Your task to perform on an android device: Open the phone app and click the voicemail tab. Image 0: 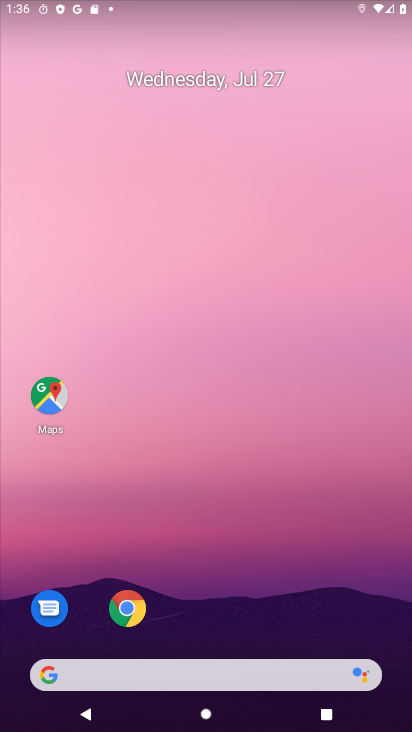
Step 0: drag from (177, 620) to (250, 86)
Your task to perform on an android device: Open the phone app and click the voicemail tab. Image 1: 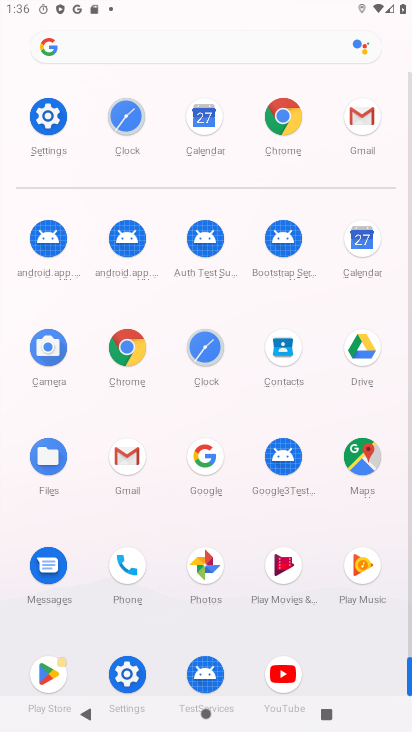
Step 1: click (125, 570)
Your task to perform on an android device: Open the phone app and click the voicemail tab. Image 2: 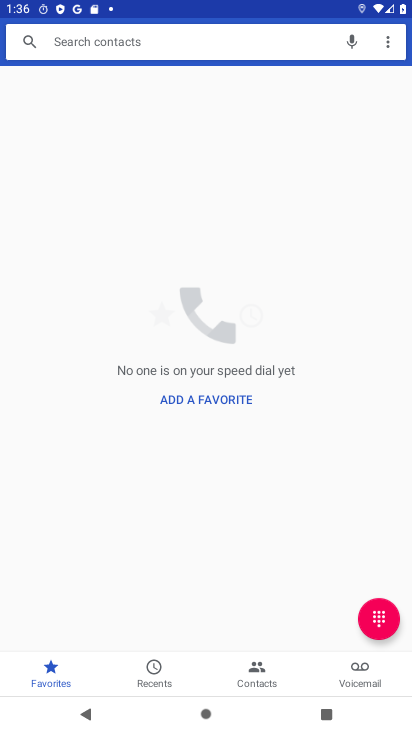
Step 2: click (354, 685)
Your task to perform on an android device: Open the phone app and click the voicemail tab. Image 3: 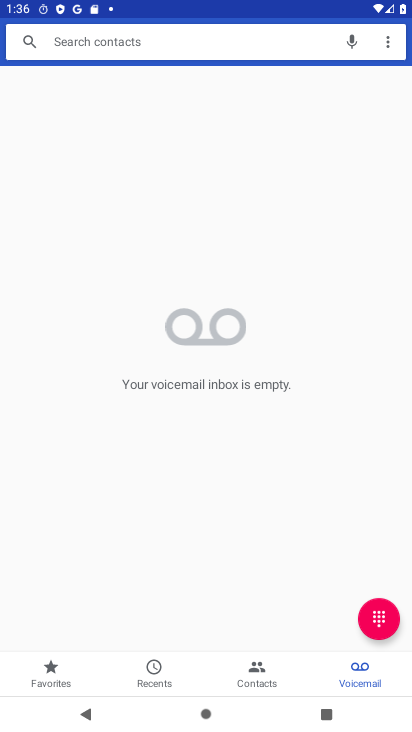
Step 3: task complete